Your task to perform on an android device: What's the weather like in Mexico City? Image 0: 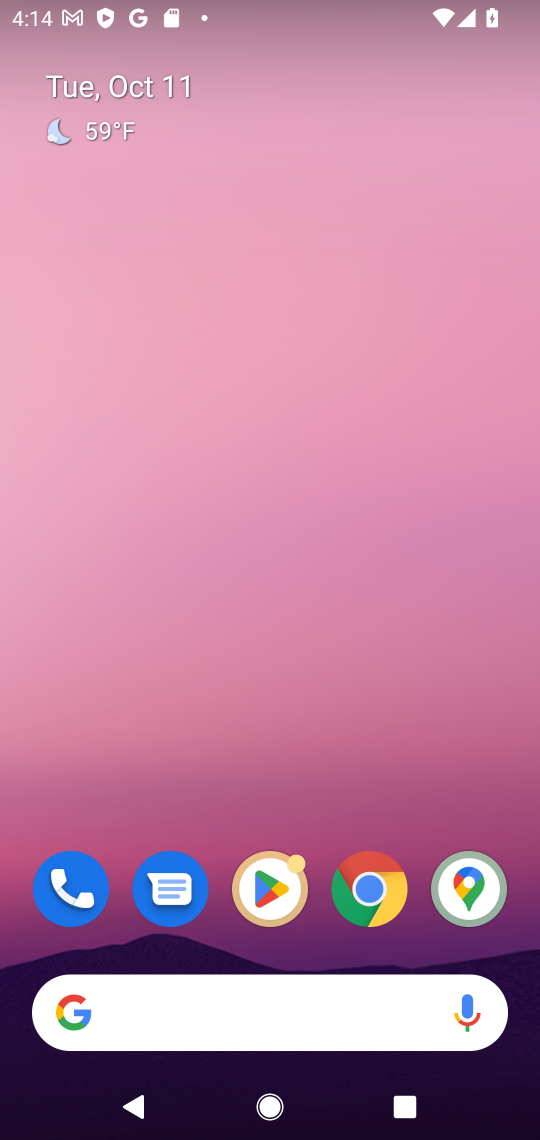
Step 0: drag from (257, 541) to (222, 198)
Your task to perform on an android device: What's the weather like in Mexico City? Image 1: 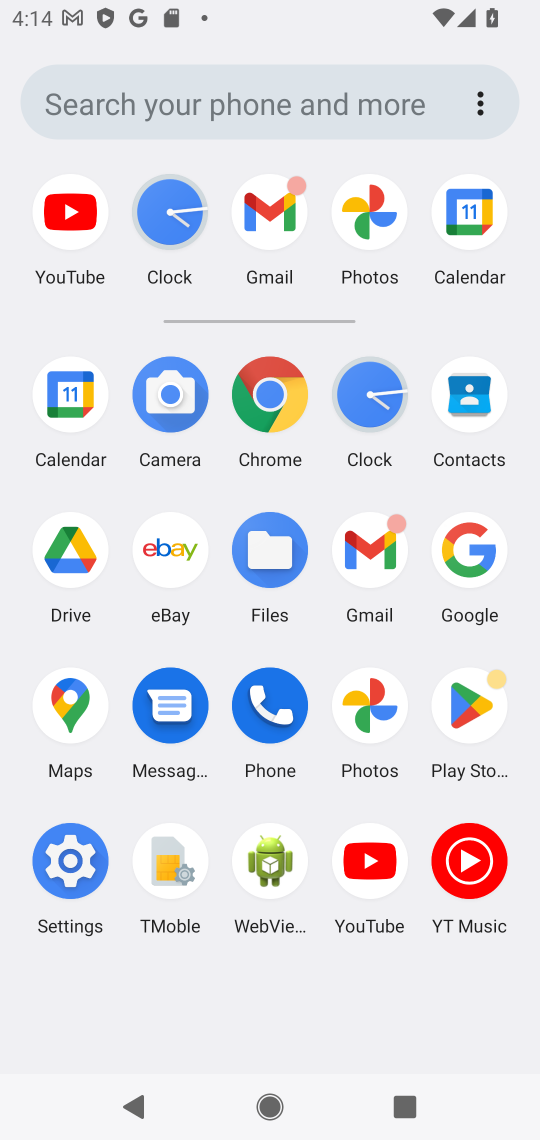
Step 1: click (465, 552)
Your task to perform on an android device: What's the weather like in Mexico City? Image 2: 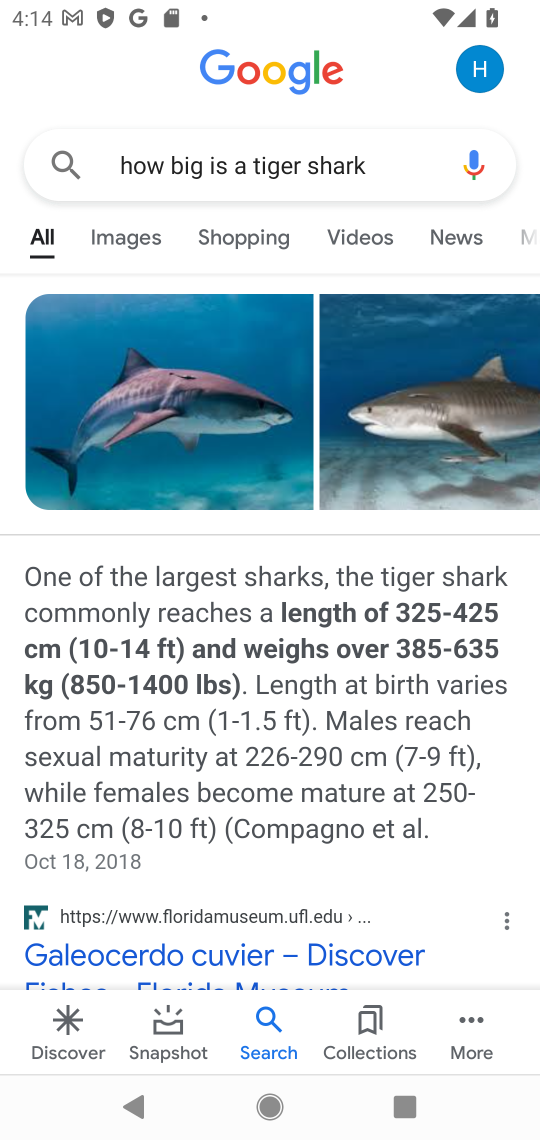
Step 2: click (377, 157)
Your task to perform on an android device: What's the weather like in Mexico City? Image 3: 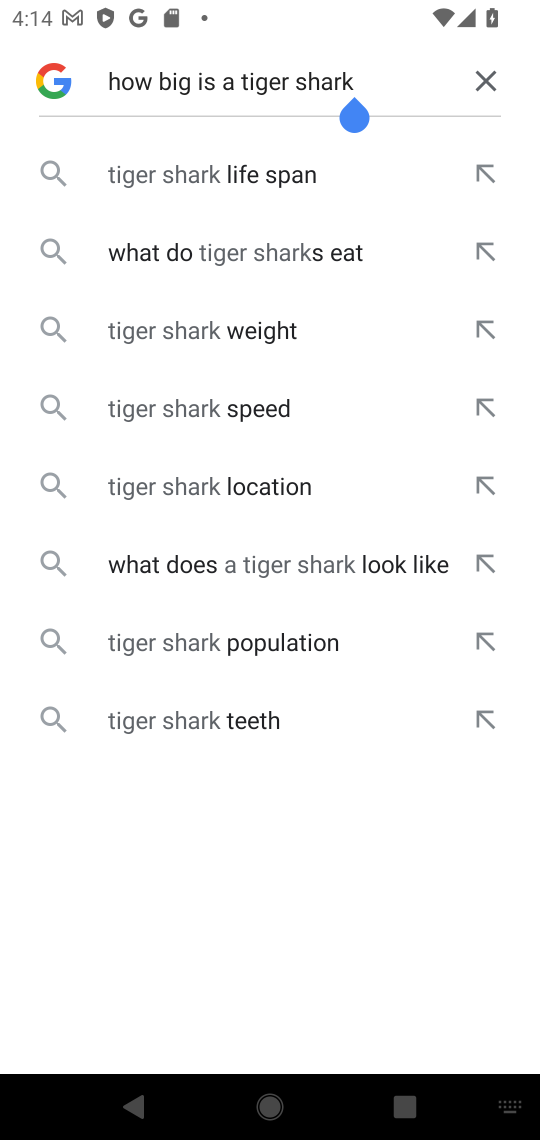
Step 3: click (485, 70)
Your task to perform on an android device: What's the weather like in Mexico City? Image 4: 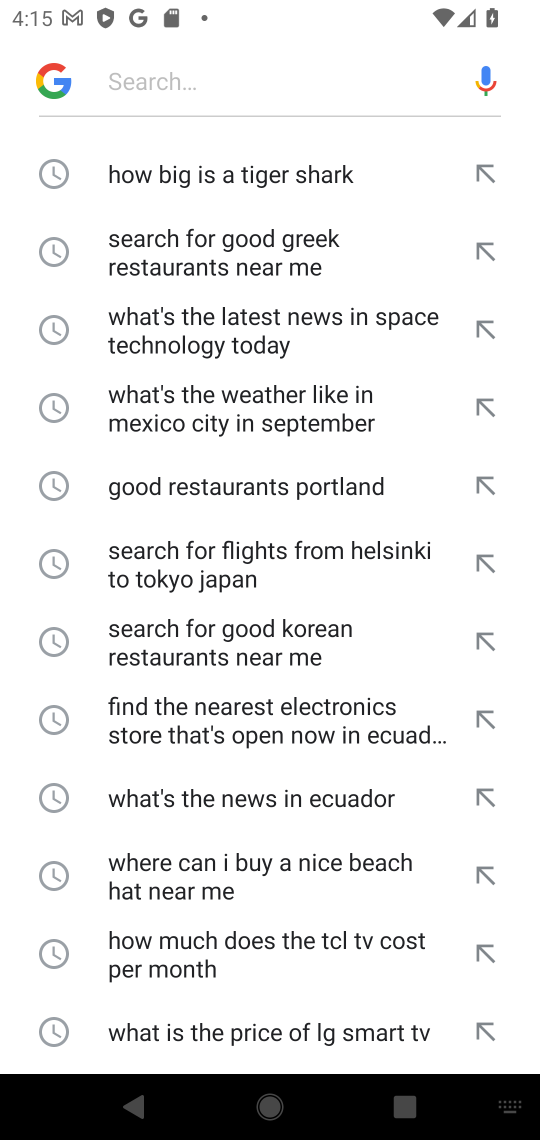
Step 4: click (215, 46)
Your task to perform on an android device: What's the weather like in Mexico City? Image 5: 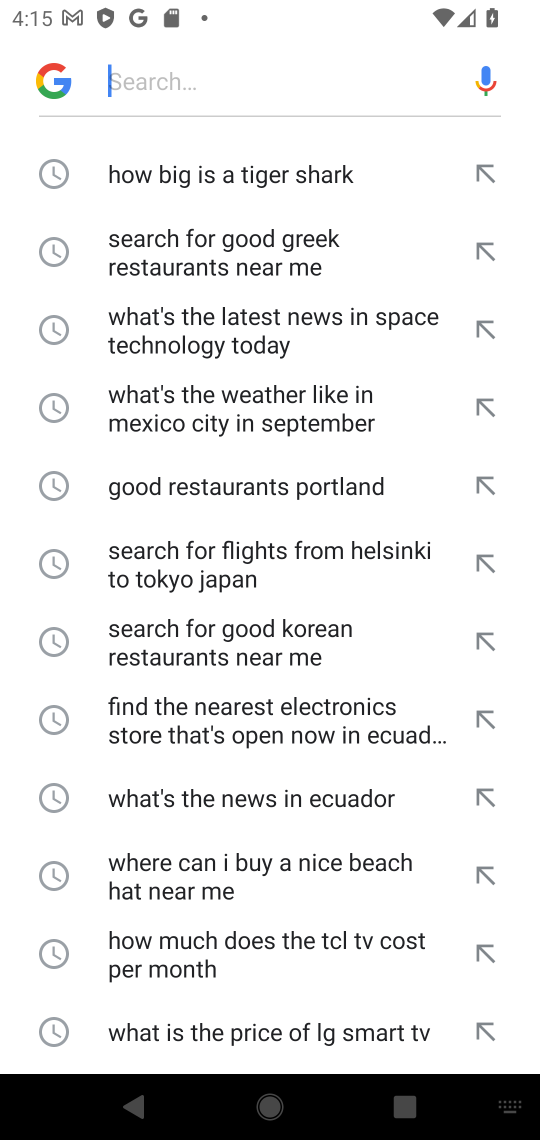
Step 5: type "What's the weather like in Mexico City? "
Your task to perform on an android device: What's the weather like in Mexico City? Image 6: 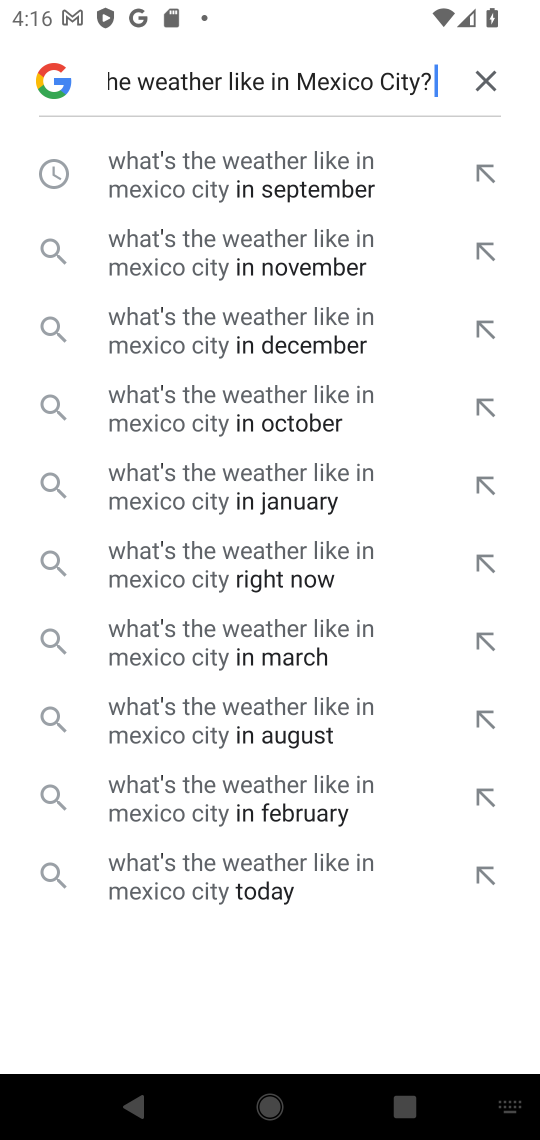
Step 6: click (248, 161)
Your task to perform on an android device: What's the weather like in Mexico City? Image 7: 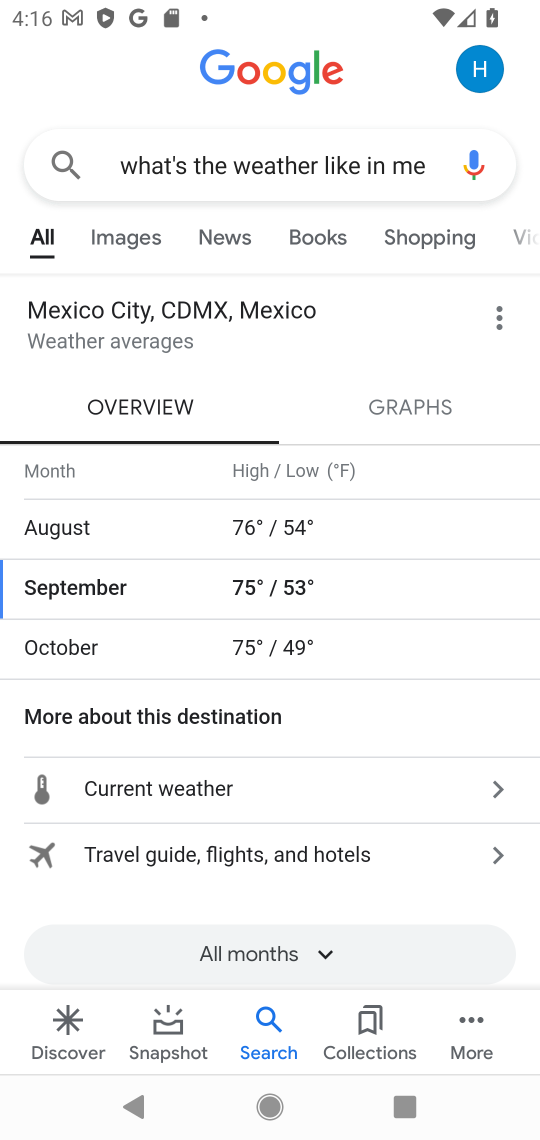
Step 7: task complete